Your task to perform on an android device: Go to Google maps Image 0: 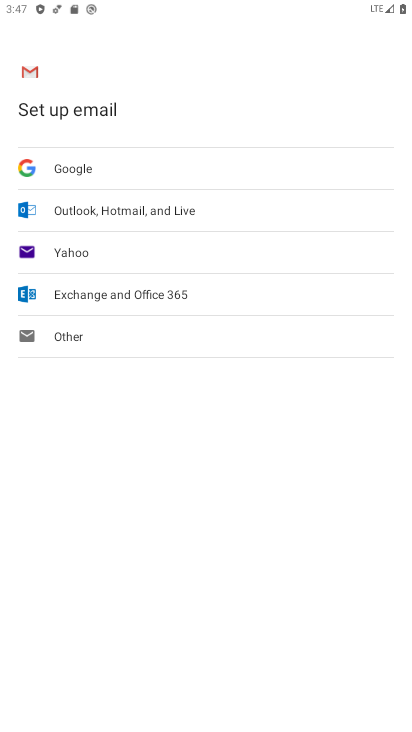
Step 0: press home button
Your task to perform on an android device: Go to Google maps Image 1: 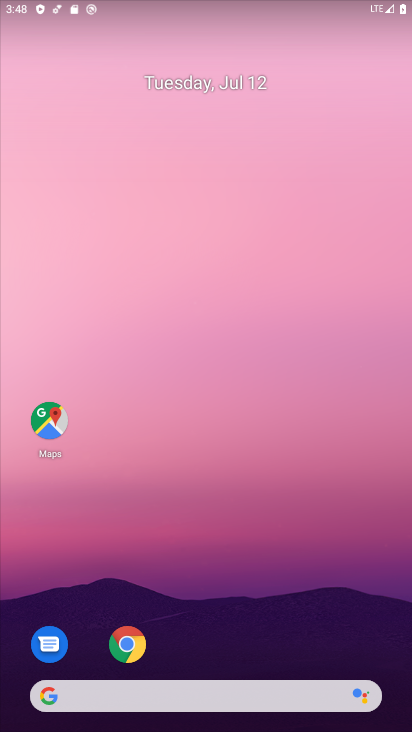
Step 1: drag from (367, 606) to (326, 156)
Your task to perform on an android device: Go to Google maps Image 2: 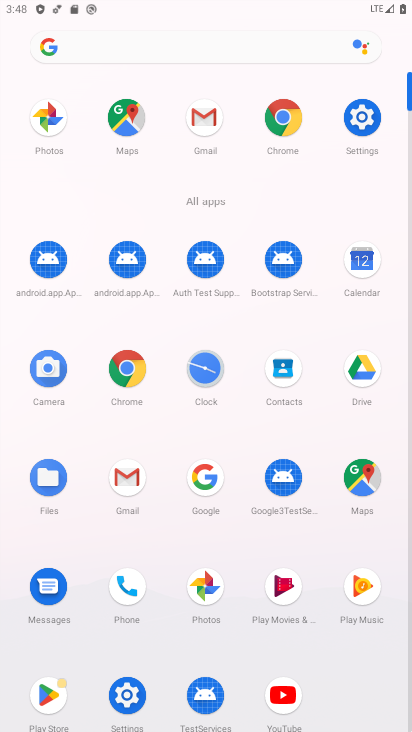
Step 2: click (117, 129)
Your task to perform on an android device: Go to Google maps Image 3: 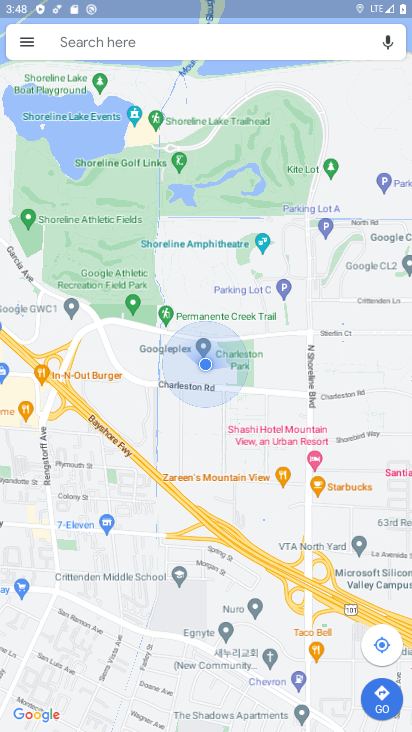
Step 3: task complete